Your task to perform on an android device: toggle javascript in the chrome app Image 0: 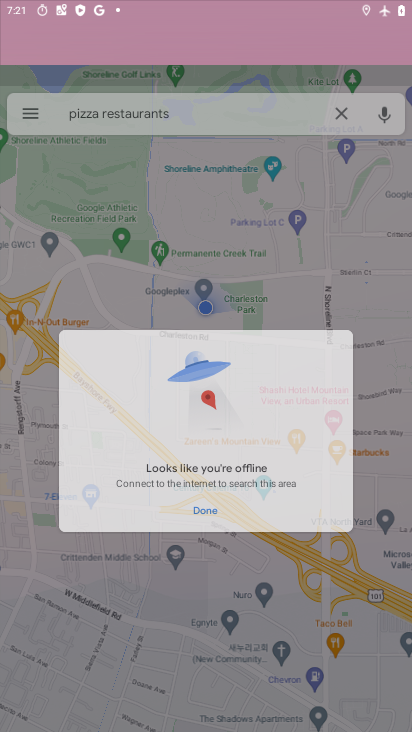
Step 0: click (321, 63)
Your task to perform on an android device: toggle javascript in the chrome app Image 1: 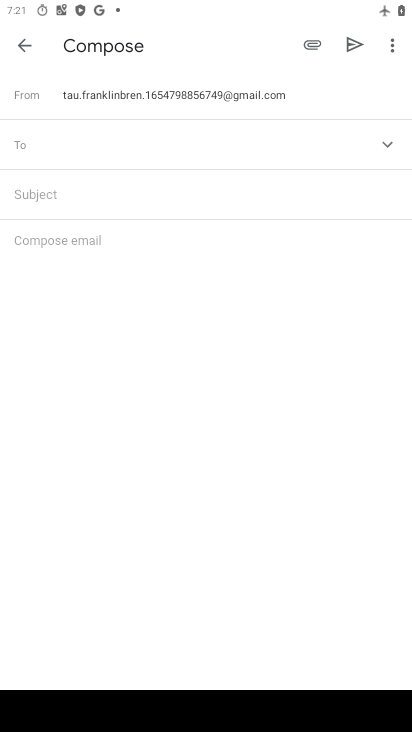
Step 1: press home button
Your task to perform on an android device: toggle javascript in the chrome app Image 2: 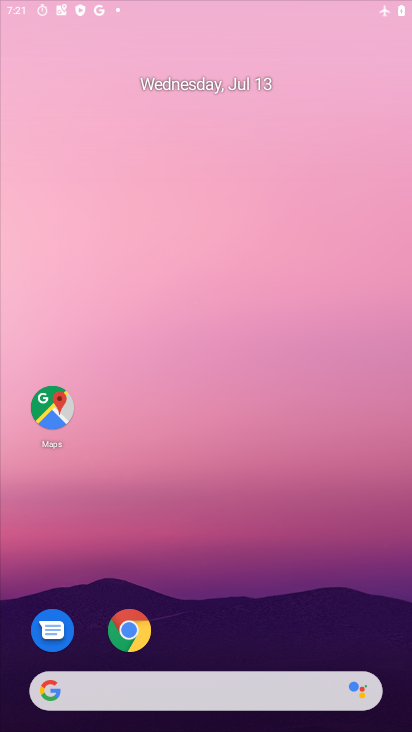
Step 2: drag from (266, 637) to (295, 11)
Your task to perform on an android device: toggle javascript in the chrome app Image 3: 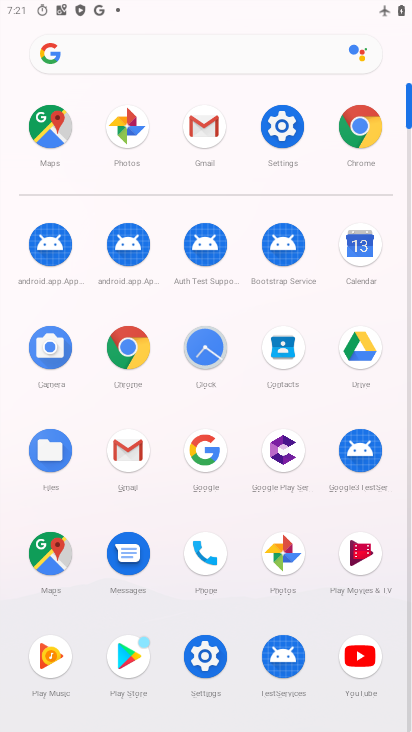
Step 3: click (363, 135)
Your task to perform on an android device: toggle javascript in the chrome app Image 4: 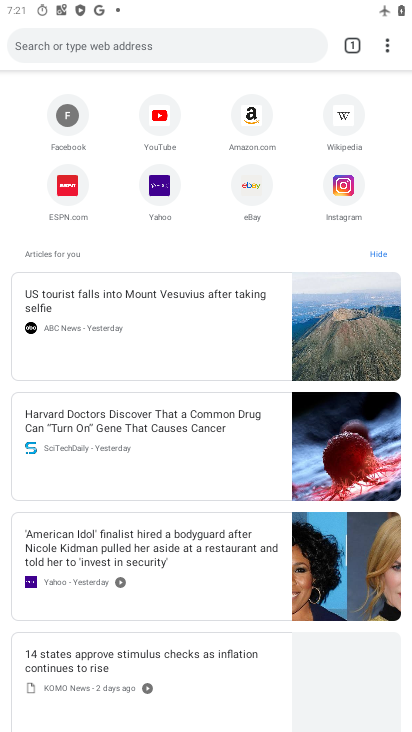
Step 4: click (379, 33)
Your task to perform on an android device: toggle javascript in the chrome app Image 5: 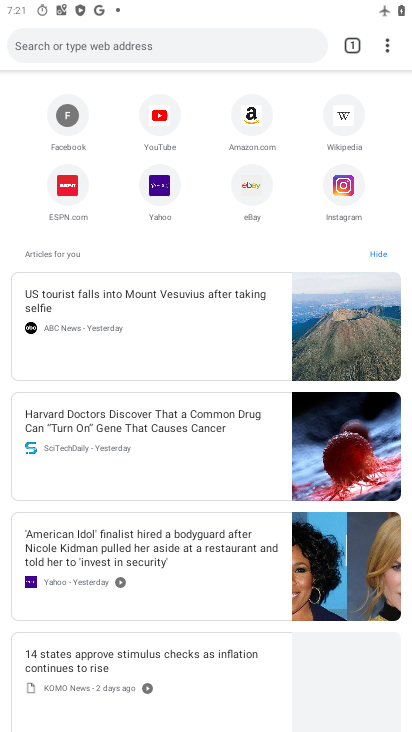
Step 5: click (391, 49)
Your task to perform on an android device: toggle javascript in the chrome app Image 6: 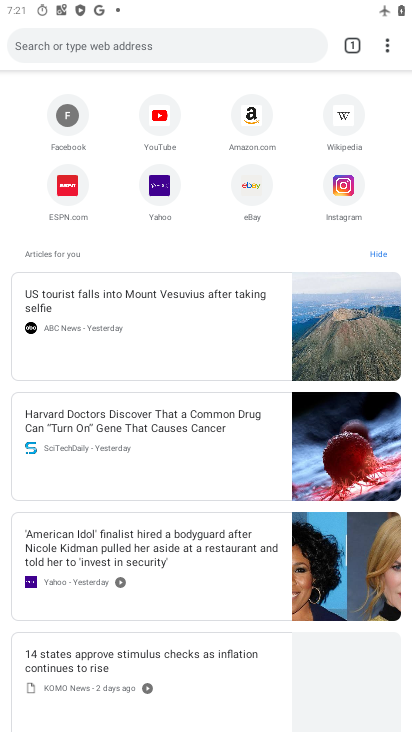
Step 6: click (391, 49)
Your task to perform on an android device: toggle javascript in the chrome app Image 7: 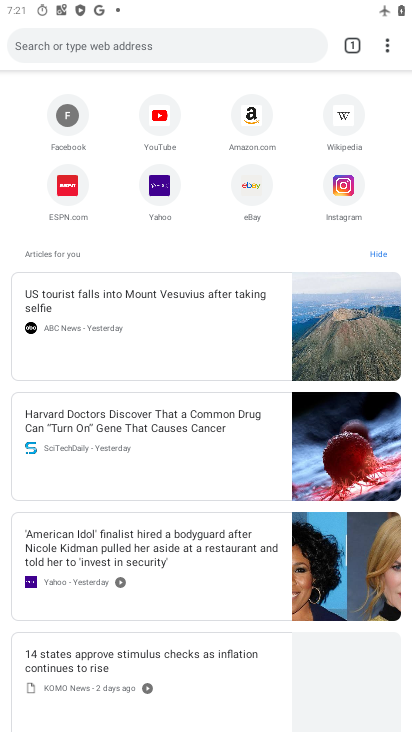
Step 7: click (391, 49)
Your task to perform on an android device: toggle javascript in the chrome app Image 8: 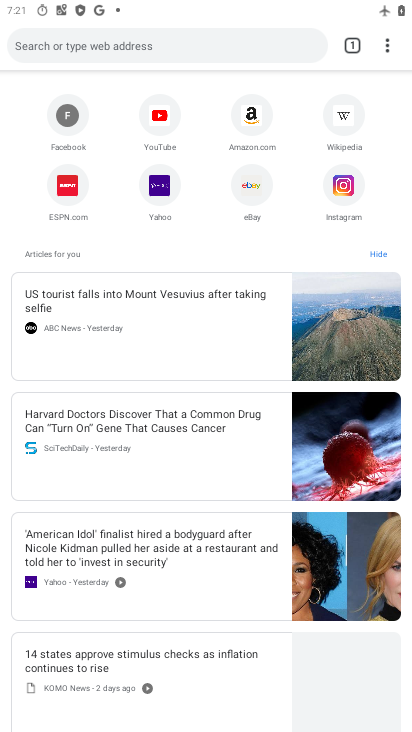
Step 8: click (394, 47)
Your task to perform on an android device: toggle javascript in the chrome app Image 9: 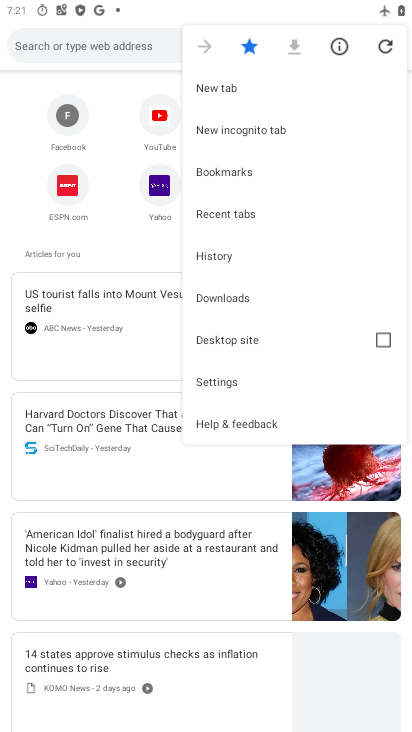
Step 9: click (229, 375)
Your task to perform on an android device: toggle javascript in the chrome app Image 10: 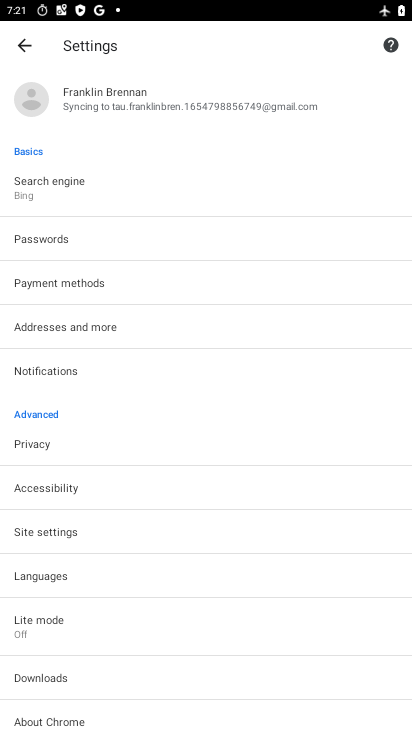
Step 10: click (118, 541)
Your task to perform on an android device: toggle javascript in the chrome app Image 11: 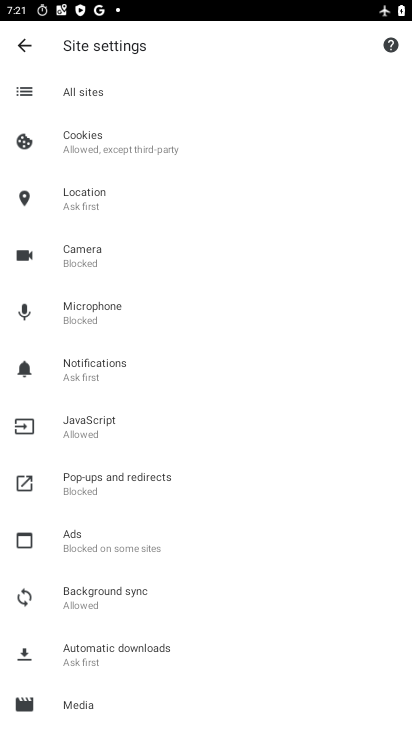
Step 11: click (119, 431)
Your task to perform on an android device: toggle javascript in the chrome app Image 12: 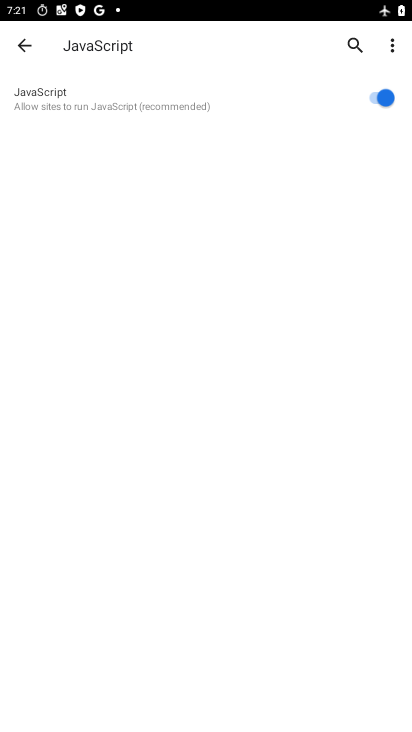
Step 12: click (350, 91)
Your task to perform on an android device: toggle javascript in the chrome app Image 13: 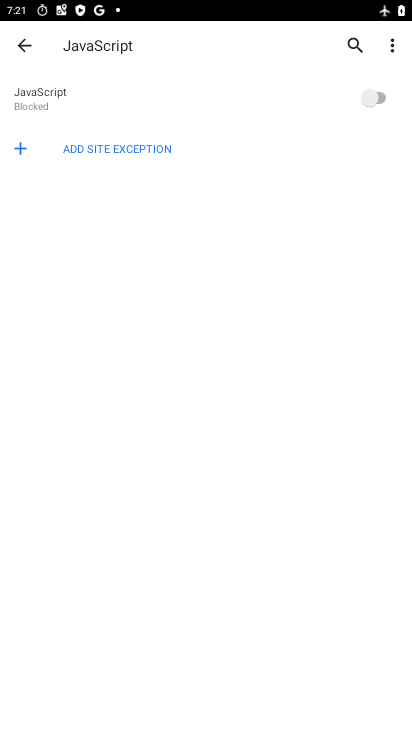
Step 13: task complete